Your task to perform on an android device: uninstall "Google Calendar" Image 0: 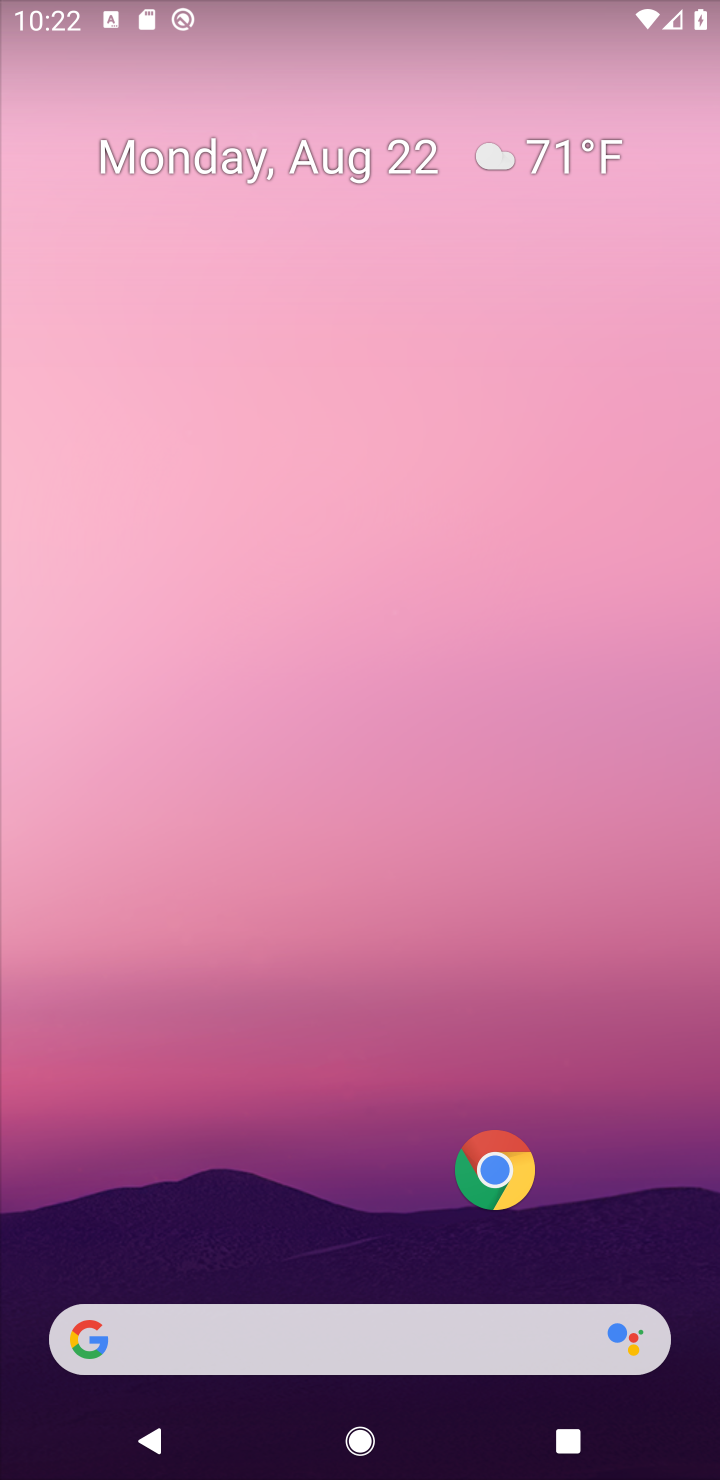
Step 0: drag from (288, 1200) to (465, 24)
Your task to perform on an android device: uninstall "Google Calendar" Image 1: 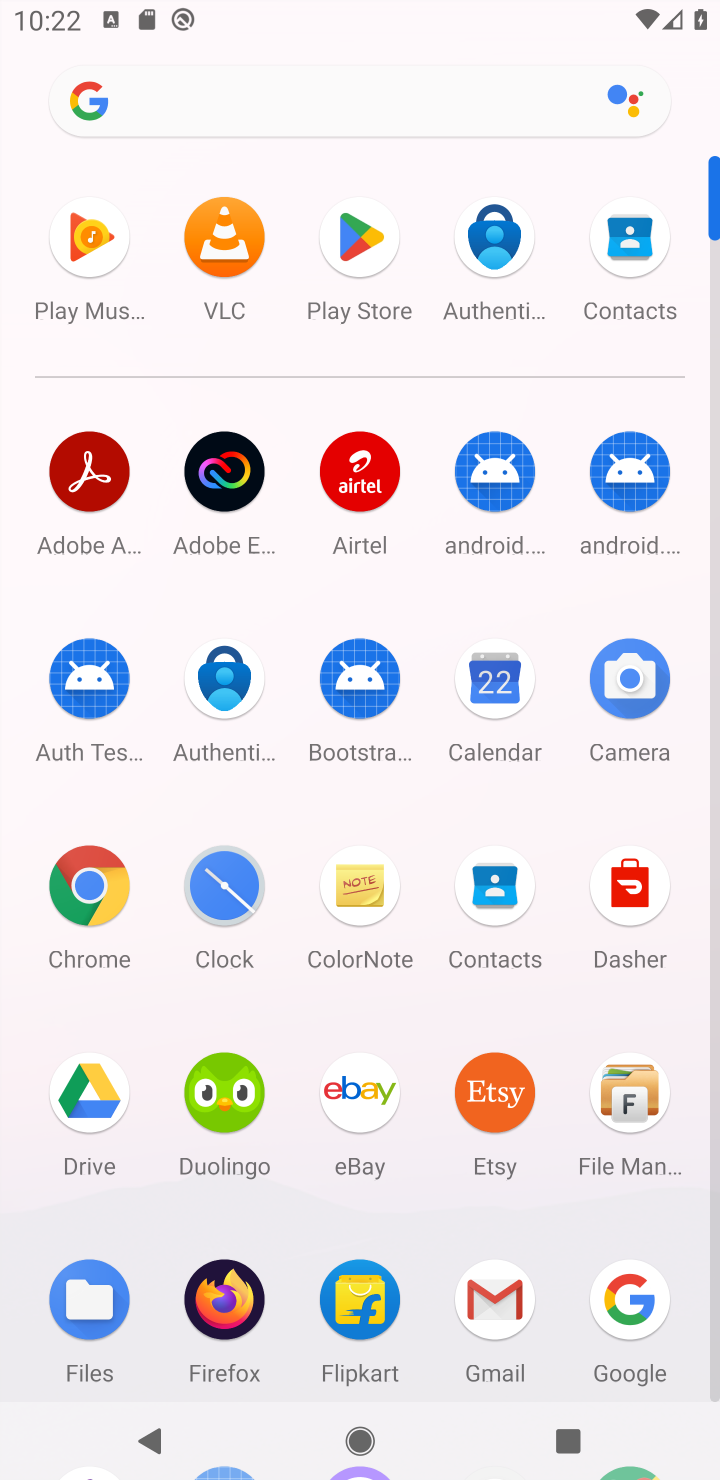
Step 1: click (364, 250)
Your task to perform on an android device: uninstall "Google Calendar" Image 2: 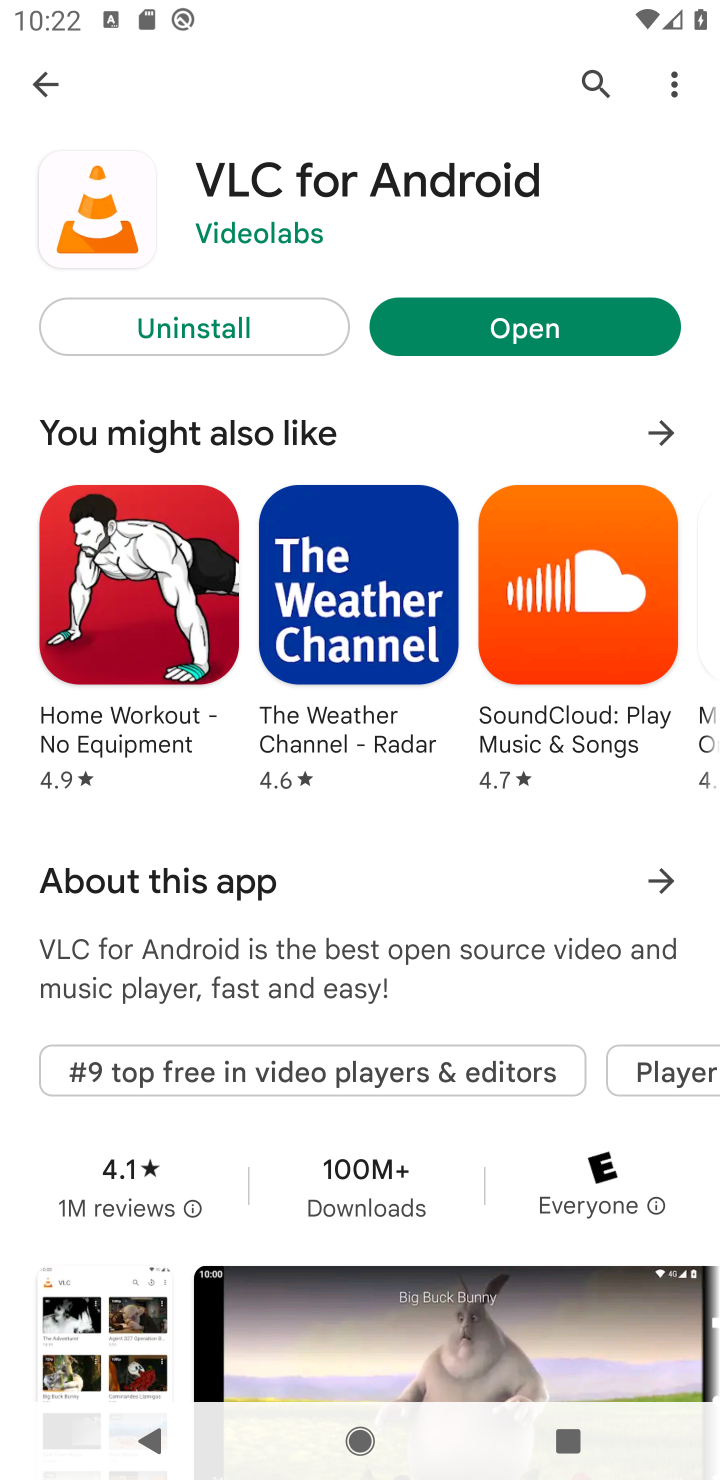
Step 2: click (586, 74)
Your task to perform on an android device: uninstall "Google Calendar" Image 3: 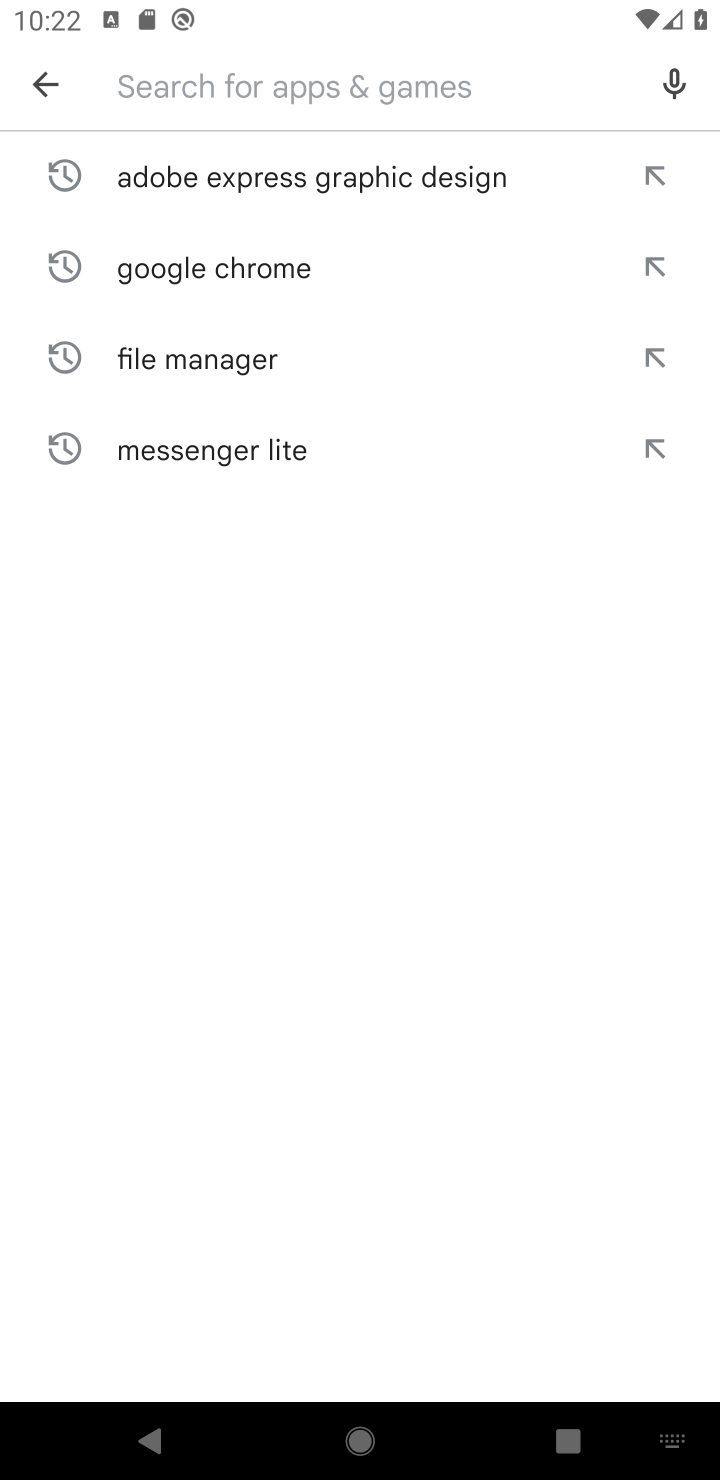
Step 3: click (352, 100)
Your task to perform on an android device: uninstall "Google Calendar" Image 4: 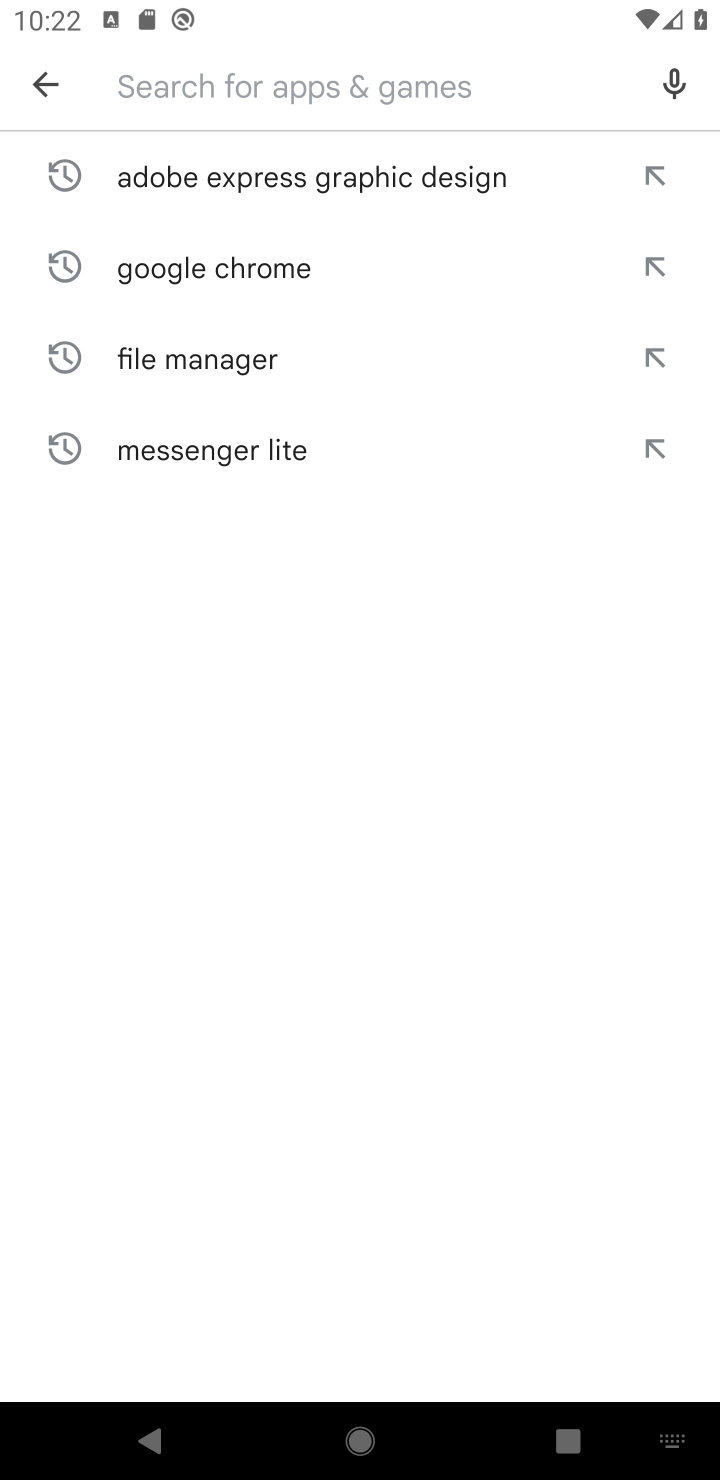
Step 4: type "Google Calendar"
Your task to perform on an android device: uninstall "Google Calendar" Image 5: 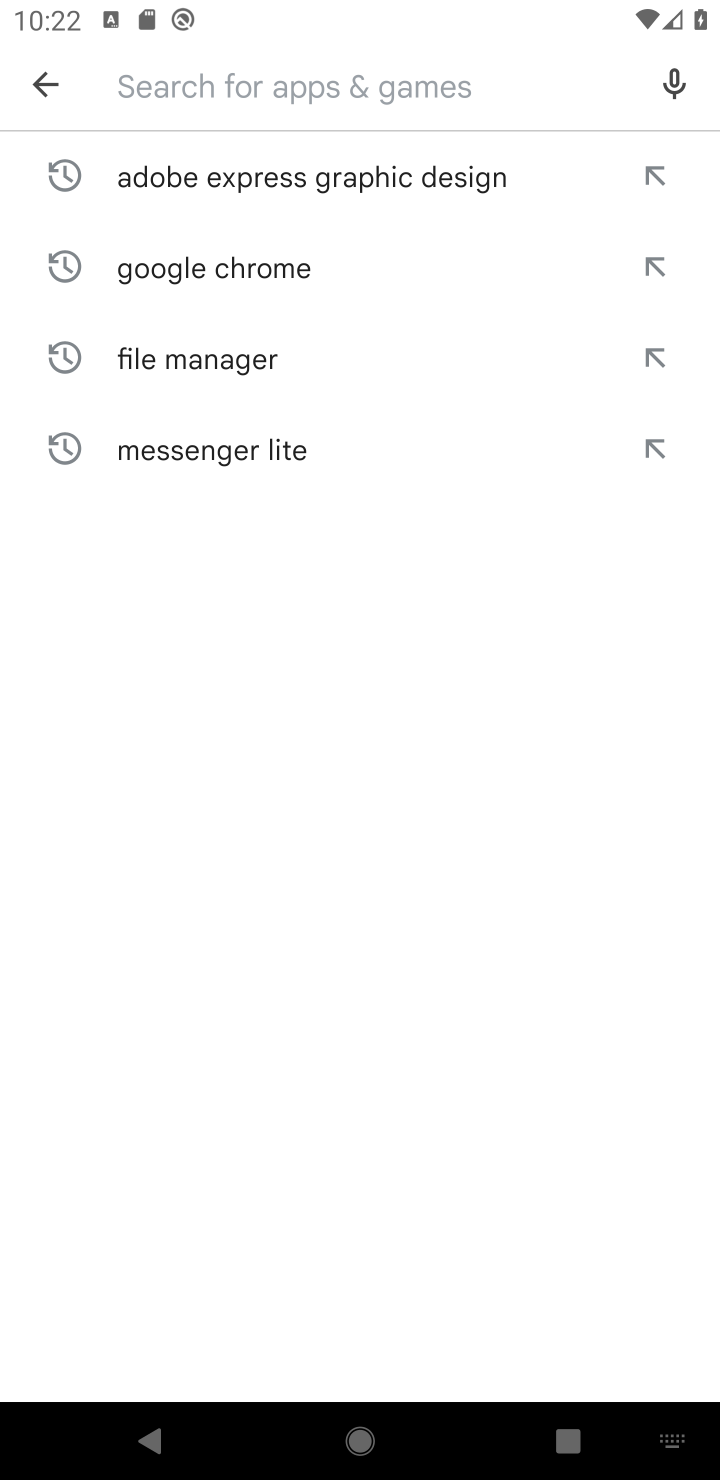
Step 5: click (448, 955)
Your task to perform on an android device: uninstall "Google Calendar" Image 6: 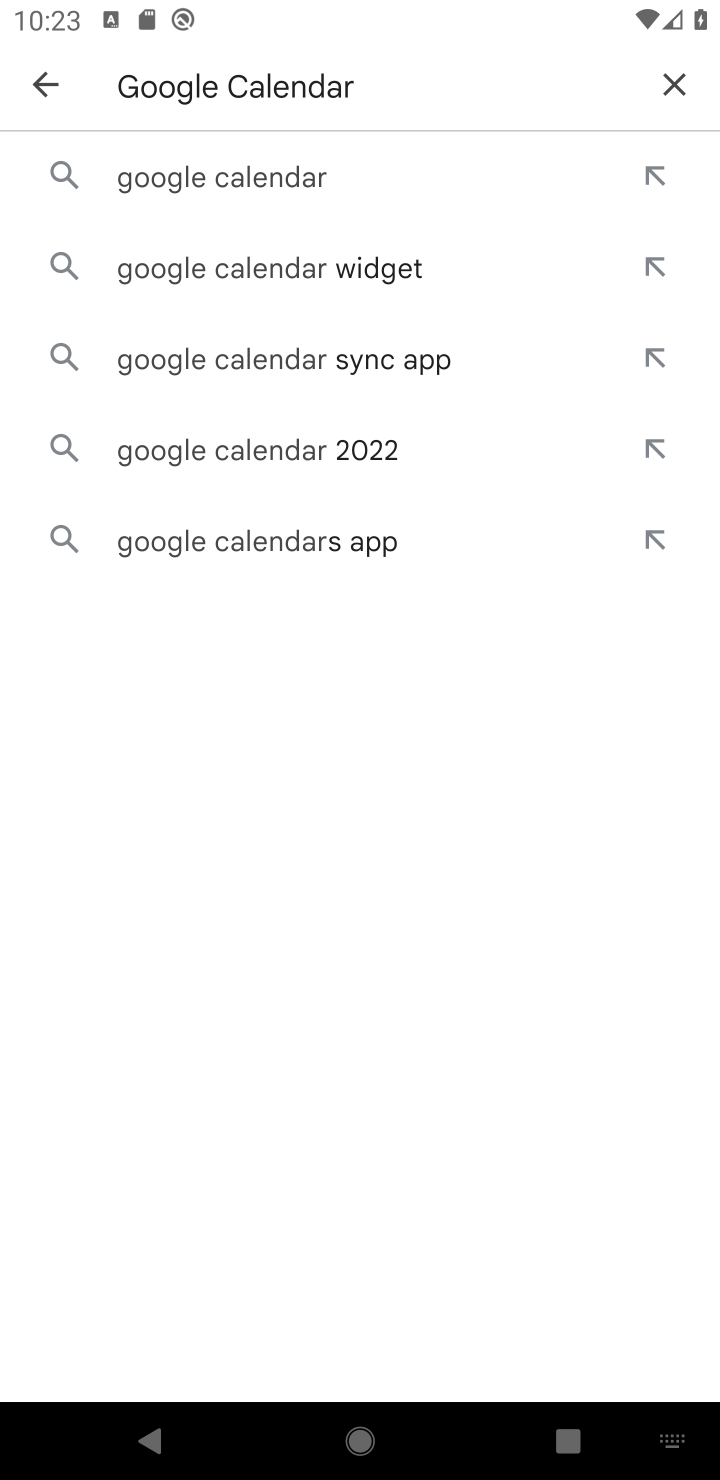
Step 6: click (224, 163)
Your task to perform on an android device: uninstall "Google Calendar" Image 7: 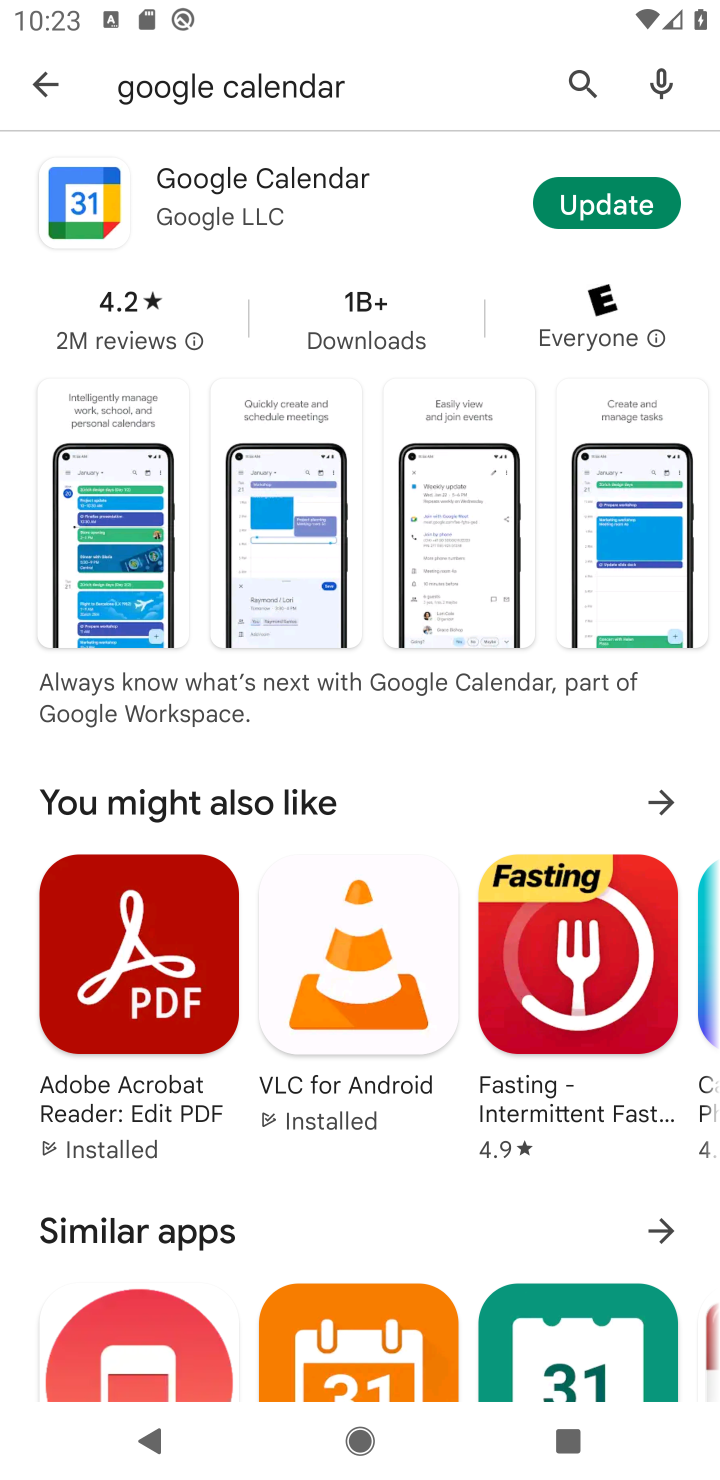
Step 7: click (310, 220)
Your task to perform on an android device: uninstall "Google Calendar" Image 8: 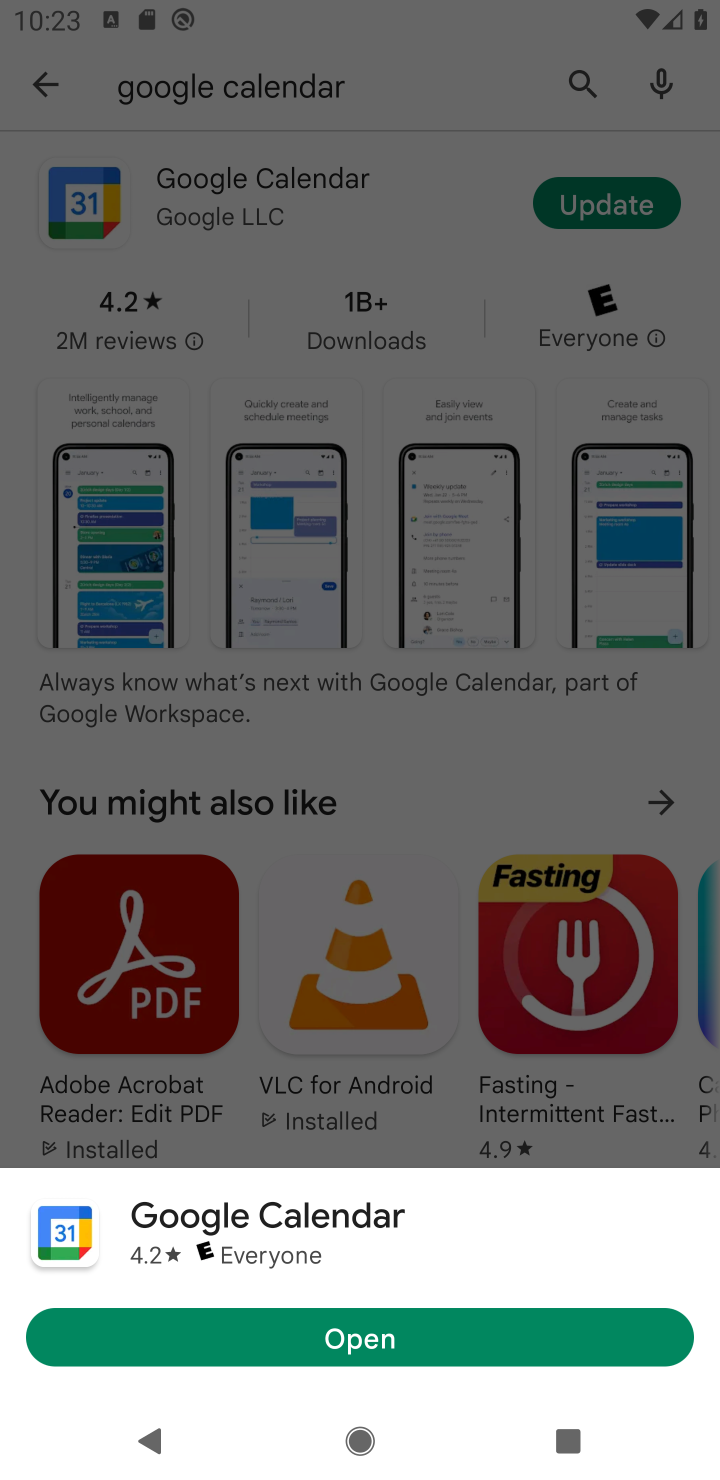
Step 8: click (245, 196)
Your task to perform on an android device: uninstall "Google Calendar" Image 9: 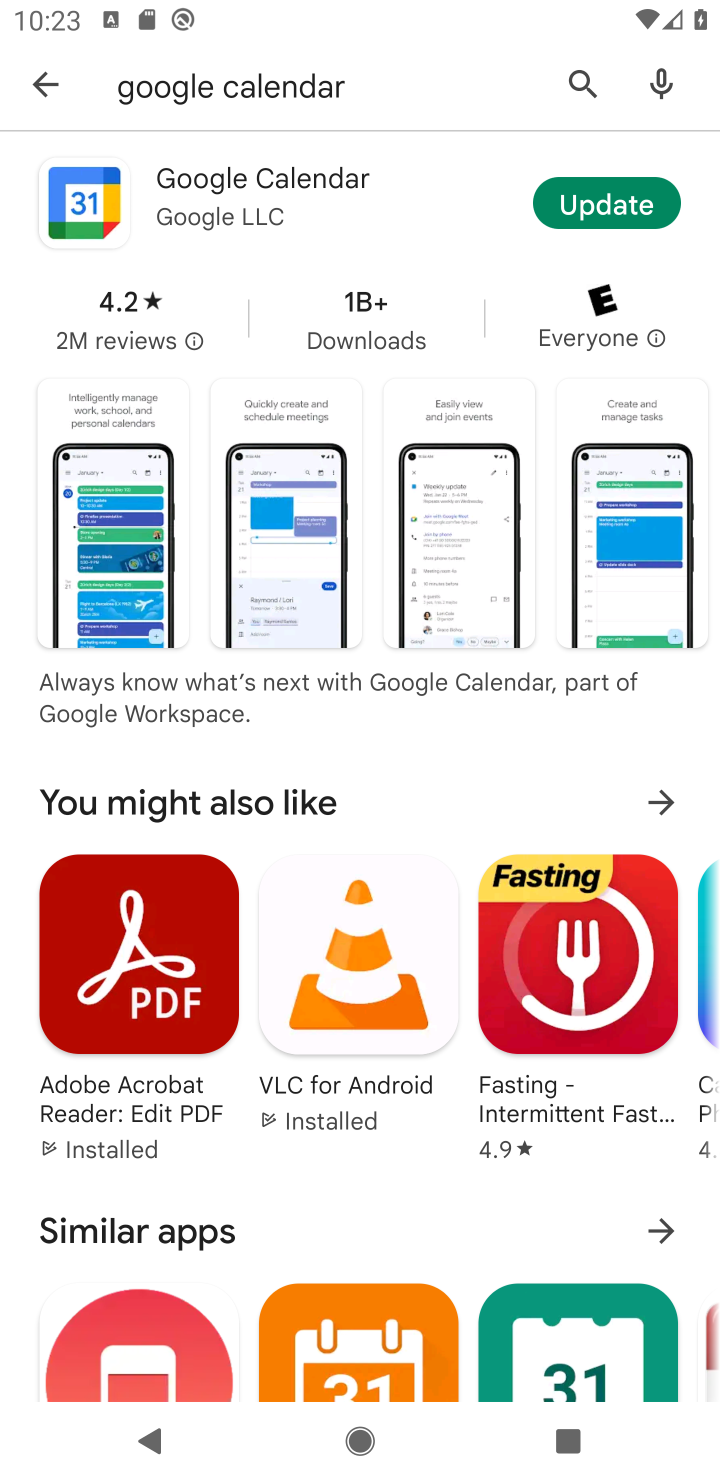
Step 9: click (217, 178)
Your task to perform on an android device: uninstall "Google Calendar" Image 10: 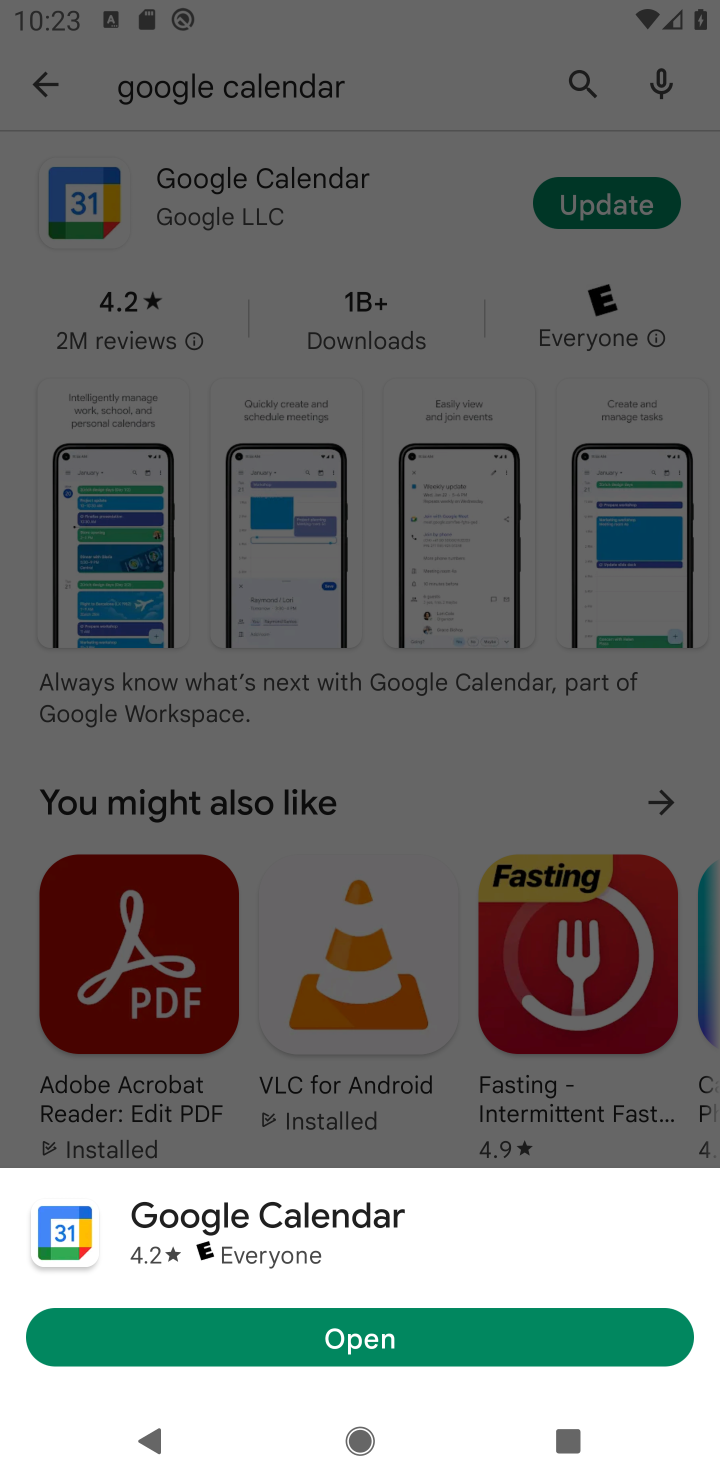
Step 10: click (351, 195)
Your task to perform on an android device: uninstall "Google Calendar" Image 11: 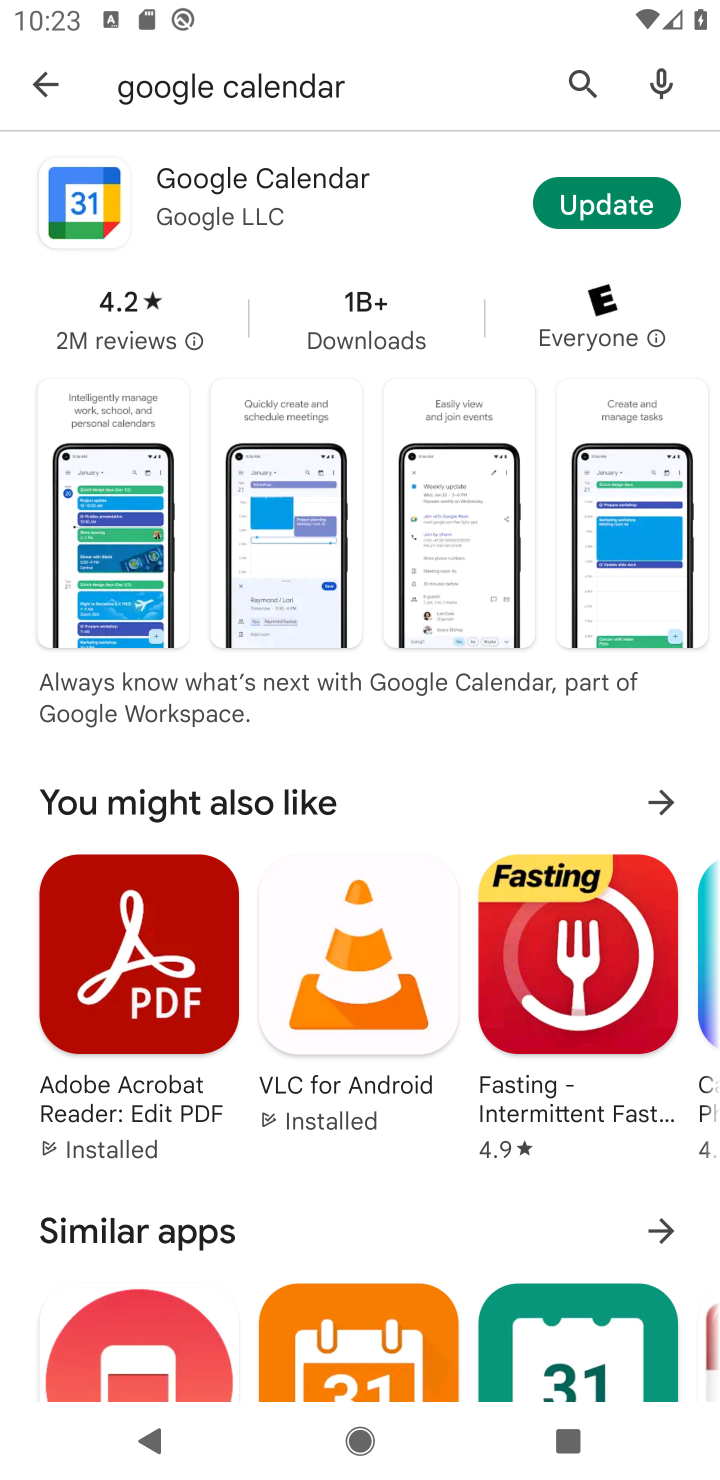
Step 11: click (398, 208)
Your task to perform on an android device: uninstall "Google Calendar" Image 12: 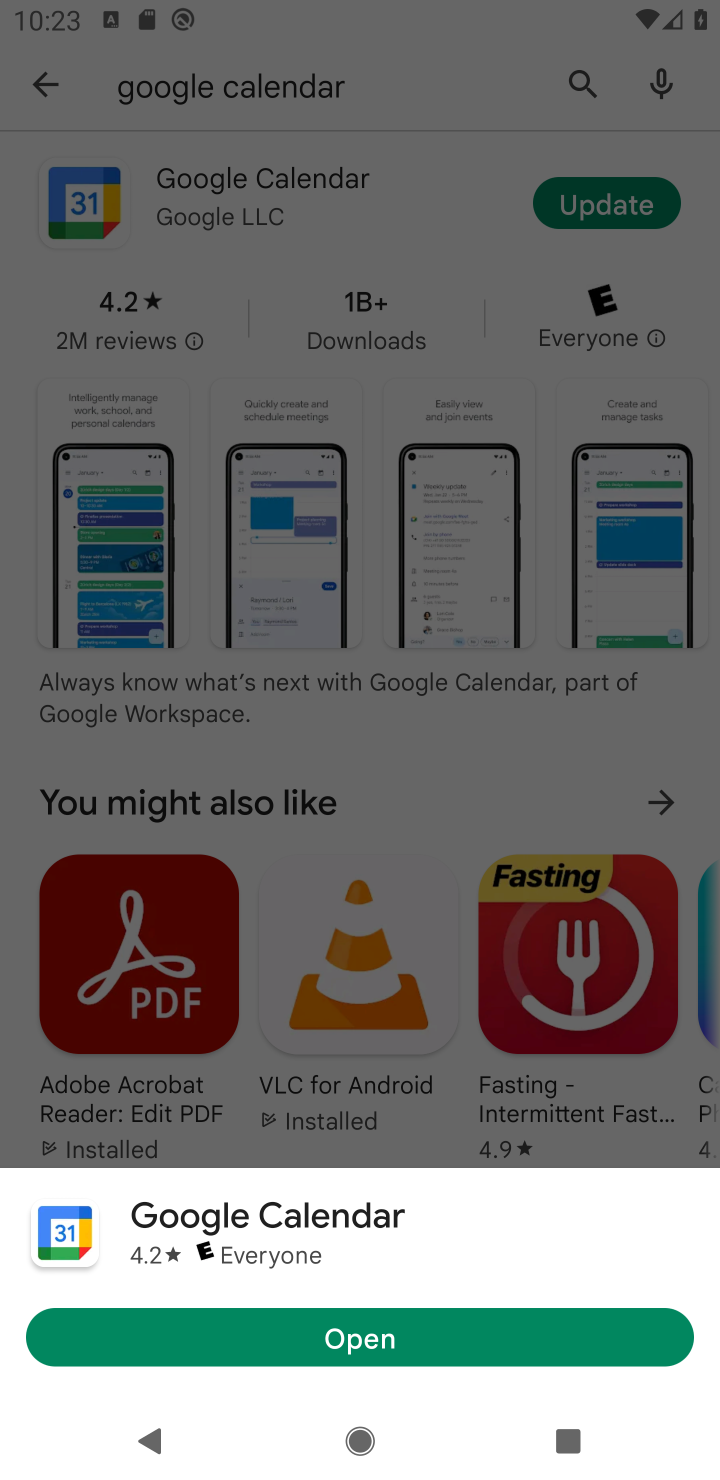
Step 12: task complete